Your task to perform on an android device: change the upload size in google photos Image 0: 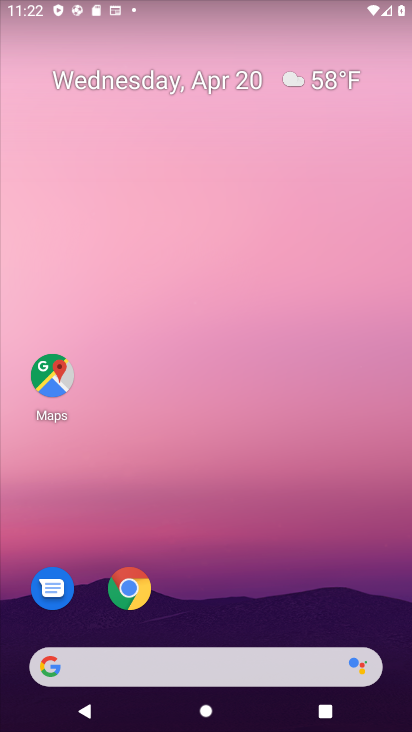
Step 0: drag from (233, 612) to (254, 137)
Your task to perform on an android device: change the upload size in google photos Image 1: 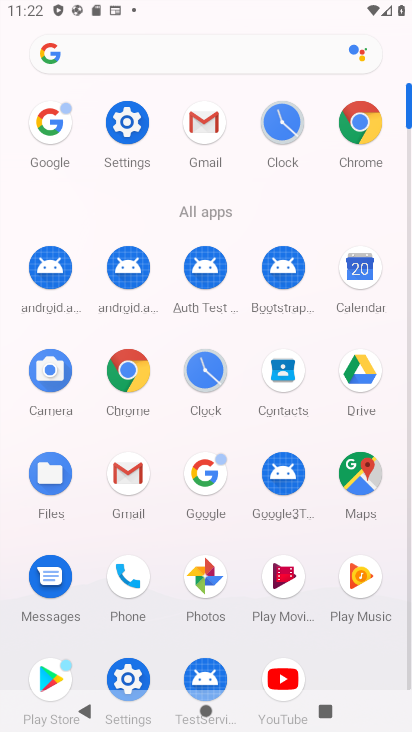
Step 1: click (218, 577)
Your task to perform on an android device: change the upload size in google photos Image 2: 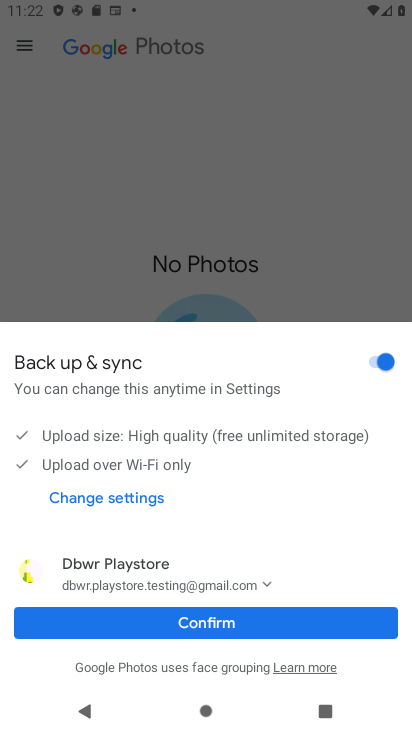
Step 2: click (256, 629)
Your task to perform on an android device: change the upload size in google photos Image 3: 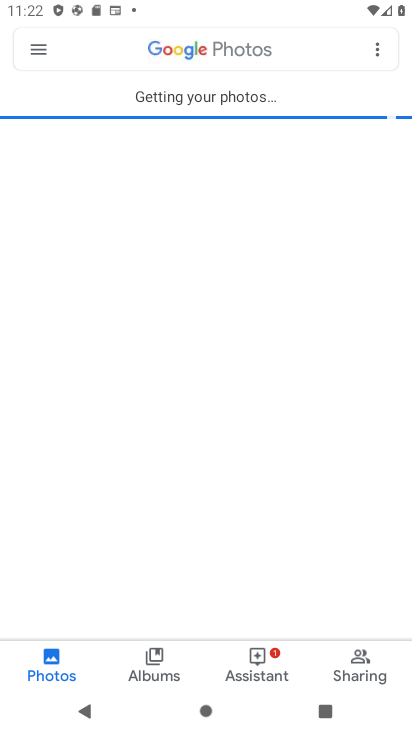
Step 3: click (35, 54)
Your task to perform on an android device: change the upload size in google photos Image 4: 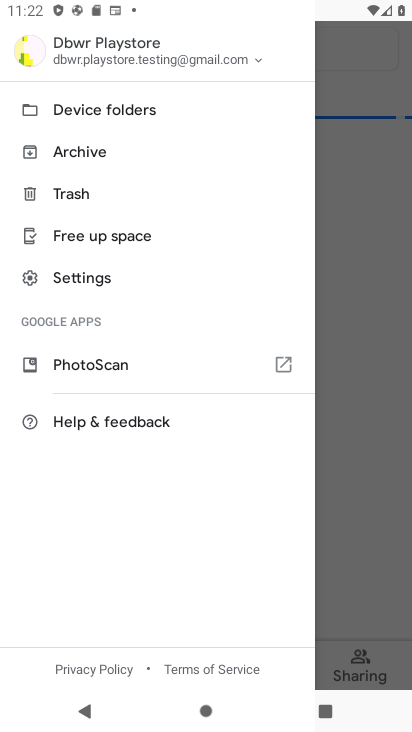
Step 4: click (90, 270)
Your task to perform on an android device: change the upload size in google photos Image 5: 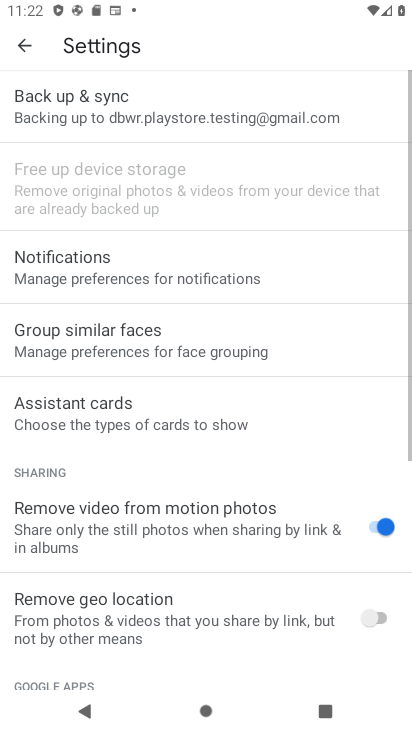
Step 5: click (129, 119)
Your task to perform on an android device: change the upload size in google photos Image 6: 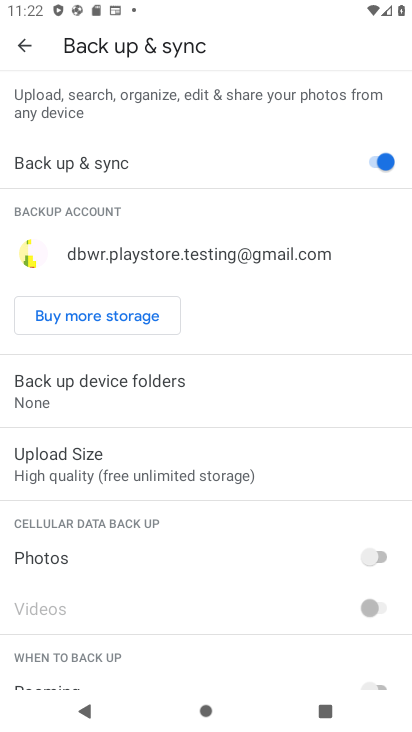
Step 6: click (153, 481)
Your task to perform on an android device: change the upload size in google photos Image 7: 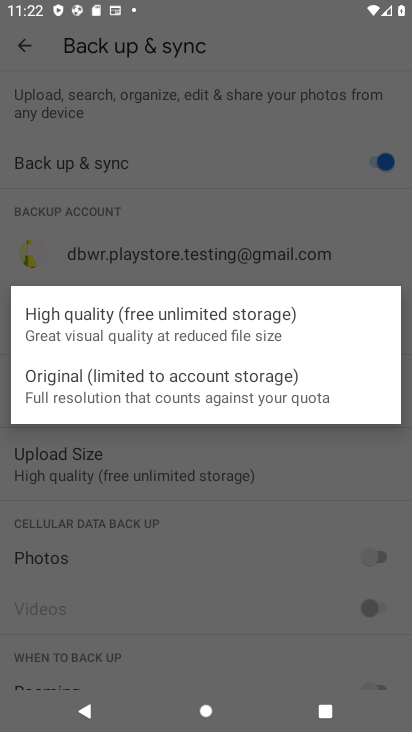
Step 7: click (115, 372)
Your task to perform on an android device: change the upload size in google photos Image 8: 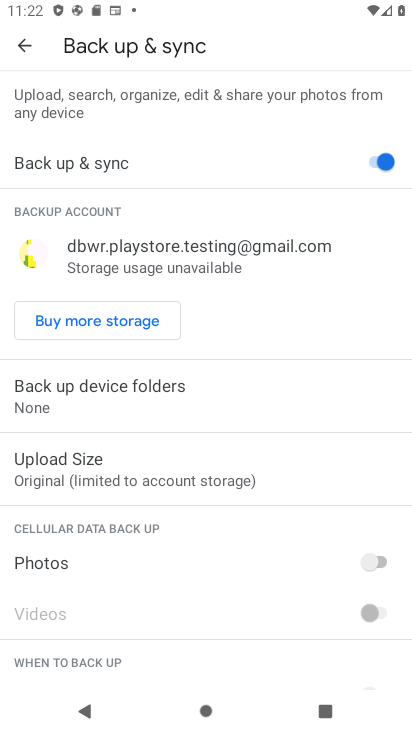
Step 8: task complete